Your task to perform on an android device: Empty the shopping cart on amazon.com. Search for usb-a on amazon.com, select the first entry, and add it to the cart. Image 0: 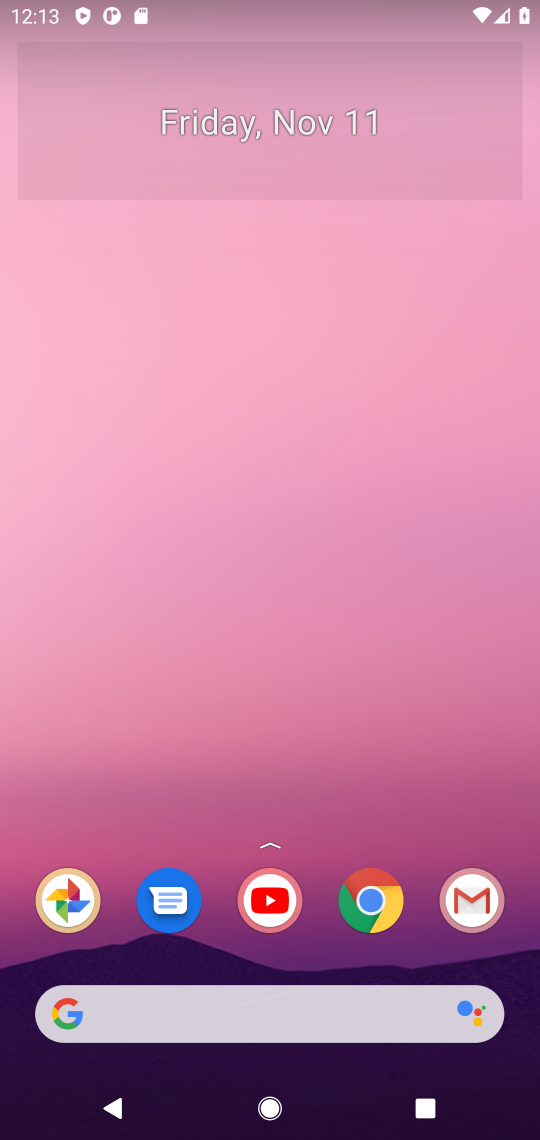
Step 0: press home button
Your task to perform on an android device: Empty the shopping cart on amazon.com. Search for usb-a on amazon.com, select the first entry, and add it to the cart. Image 1: 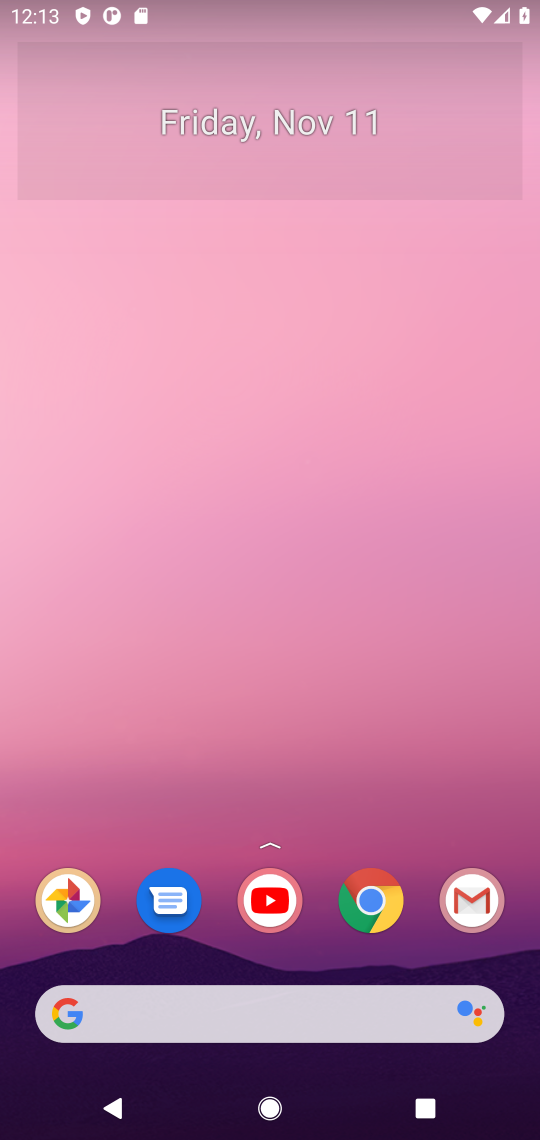
Step 1: click (373, 898)
Your task to perform on an android device: Empty the shopping cart on amazon.com. Search for usb-a on amazon.com, select the first entry, and add it to the cart. Image 2: 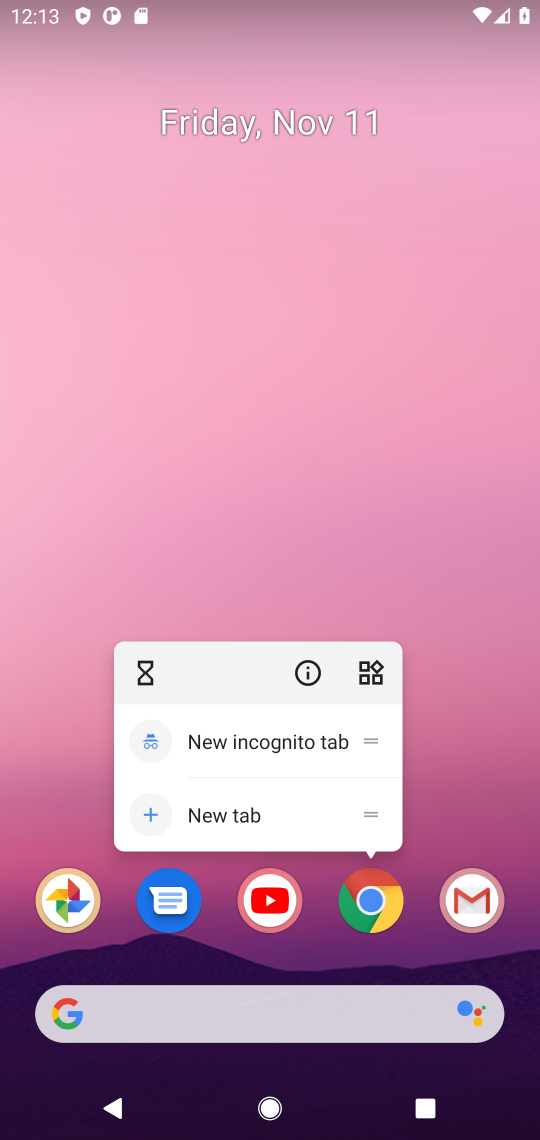
Step 2: click (372, 904)
Your task to perform on an android device: Empty the shopping cart on amazon.com. Search for usb-a on amazon.com, select the first entry, and add it to the cart. Image 3: 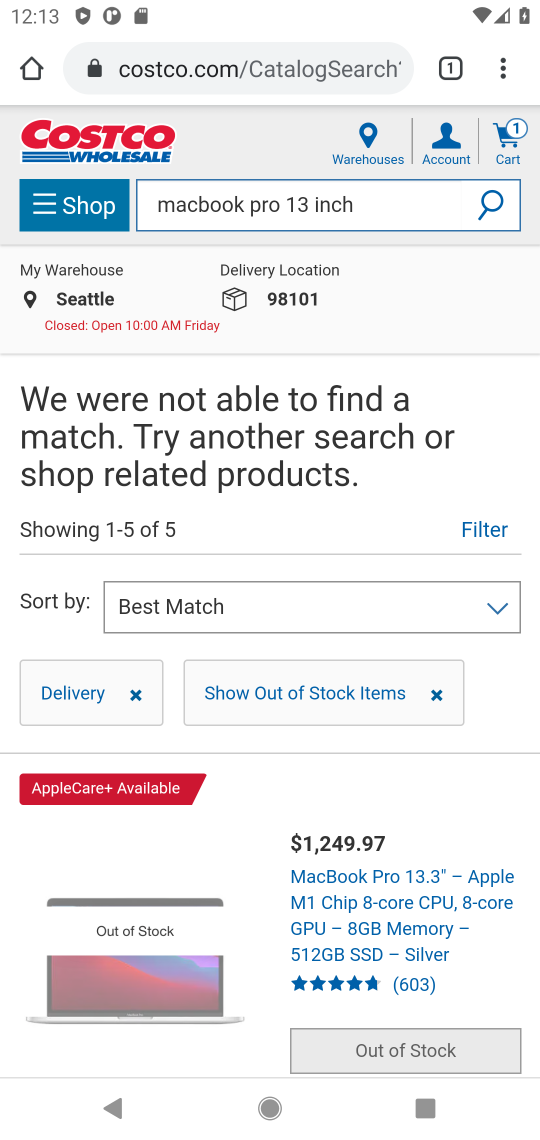
Step 3: click (330, 62)
Your task to perform on an android device: Empty the shopping cart on amazon.com. Search for usb-a on amazon.com, select the first entry, and add it to the cart. Image 4: 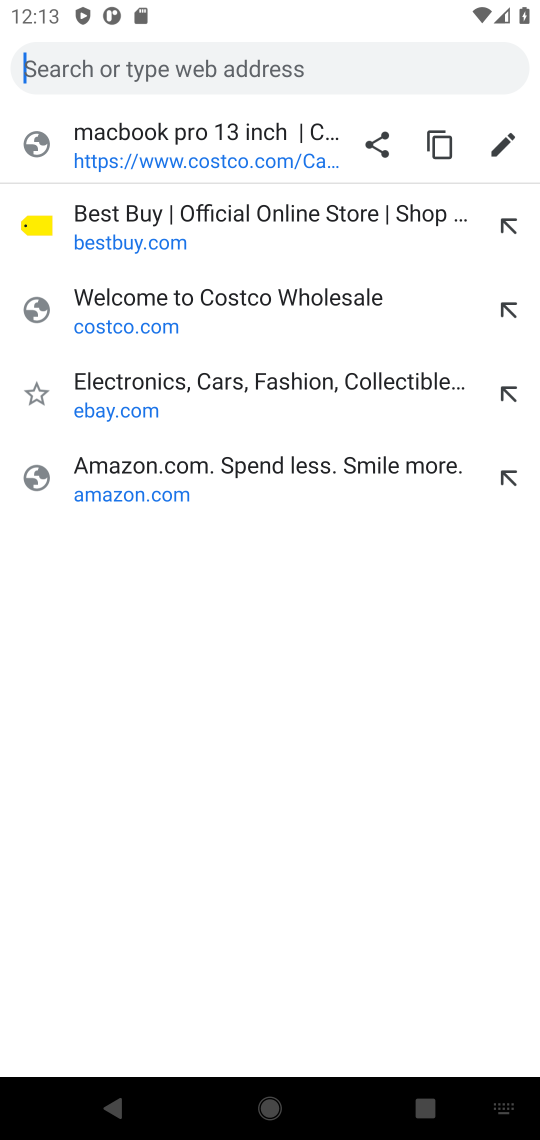
Step 4: click (125, 488)
Your task to perform on an android device: Empty the shopping cart on amazon.com. Search for usb-a on amazon.com, select the first entry, and add it to the cart. Image 5: 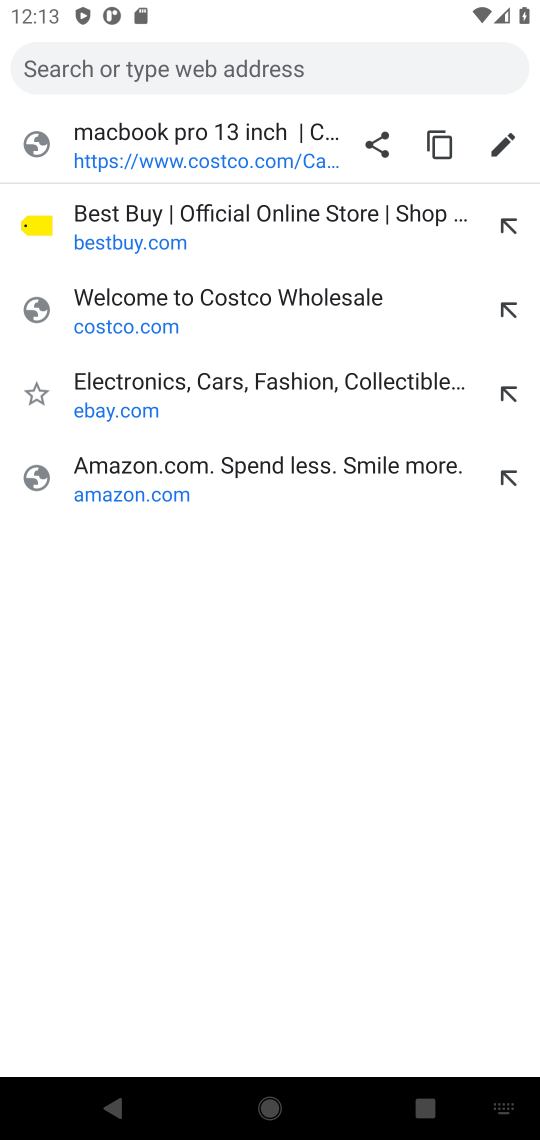
Step 5: click (125, 488)
Your task to perform on an android device: Empty the shopping cart on amazon.com. Search for usb-a on amazon.com, select the first entry, and add it to the cart. Image 6: 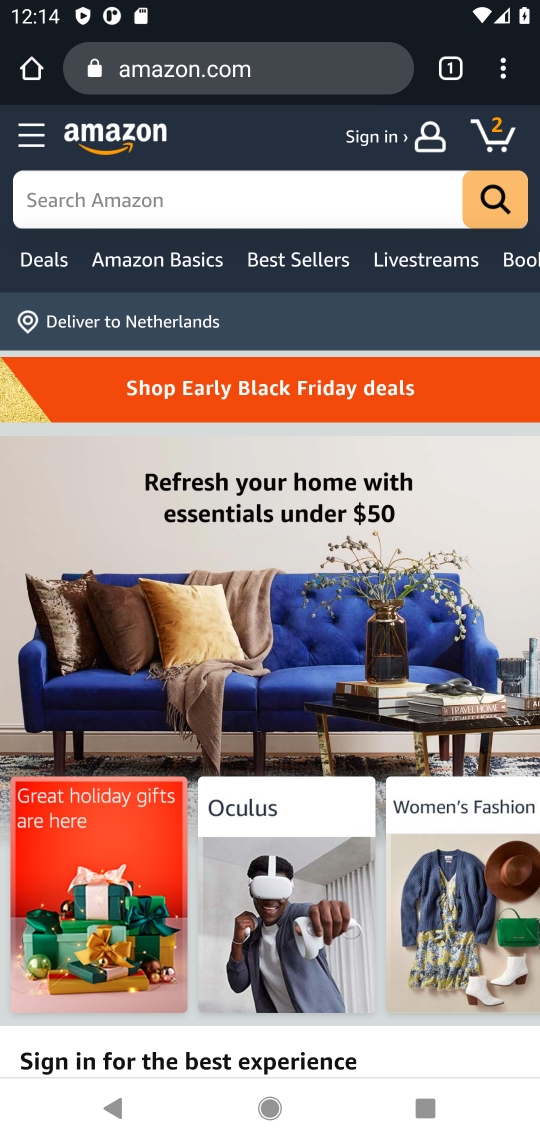
Step 6: click (102, 198)
Your task to perform on an android device: Empty the shopping cart on amazon.com. Search for usb-a on amazon.com, select the first entry, and add it to the cart. Image 7: 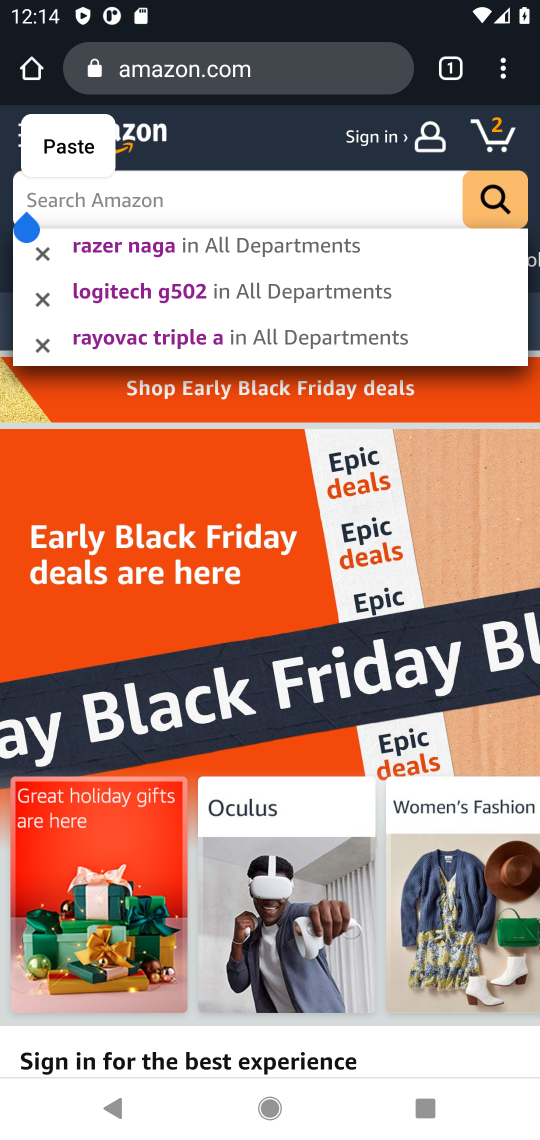
Step 7: type " usb-a "
Your task to perform on an android device: Empty the shopping cart on amazon.com. Search for usb-a on amazon.com, select the first entry, and add it to the cart. Image 8: 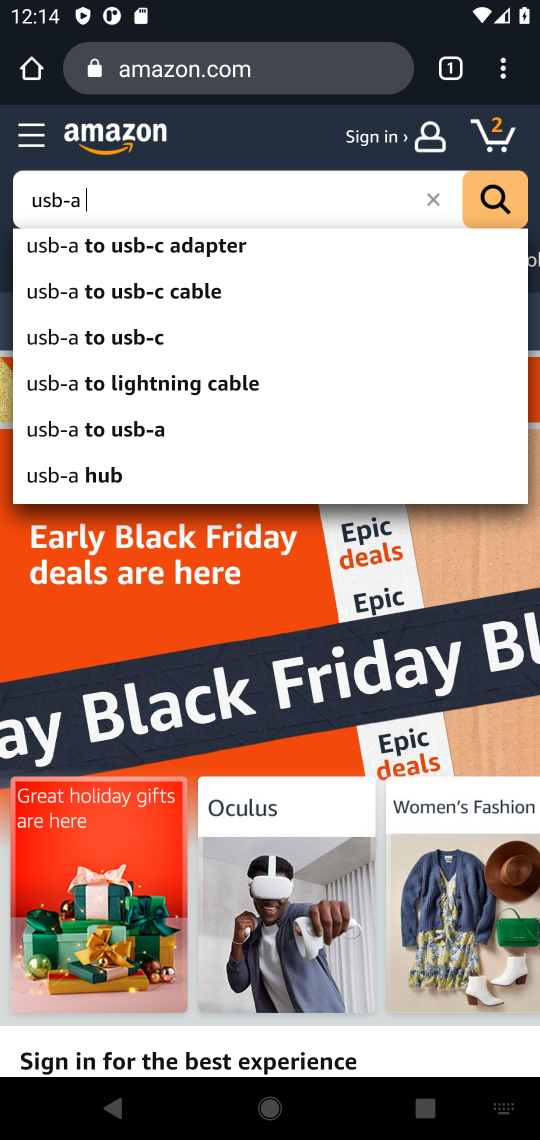
Step 8: press enter
Your task to perform on an android device: Empty the shopping cart on amazon.com. Search for usb-a on amazon.com, select the first entry, and add it to the cart. Image 9: 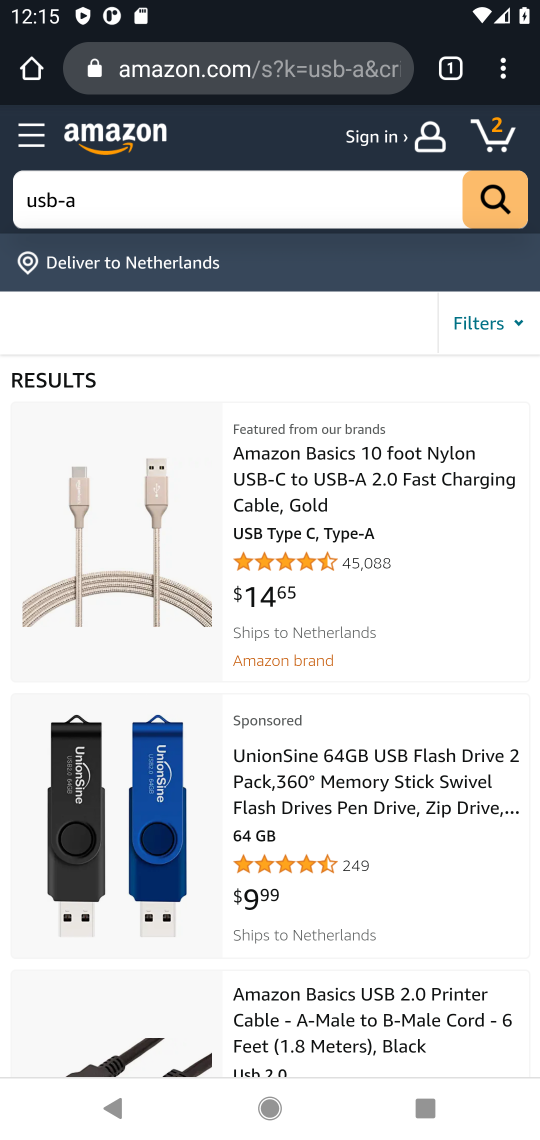
Step 9: task complete